Your task to perform on an android device: turn off notifications in google photos Image 0: 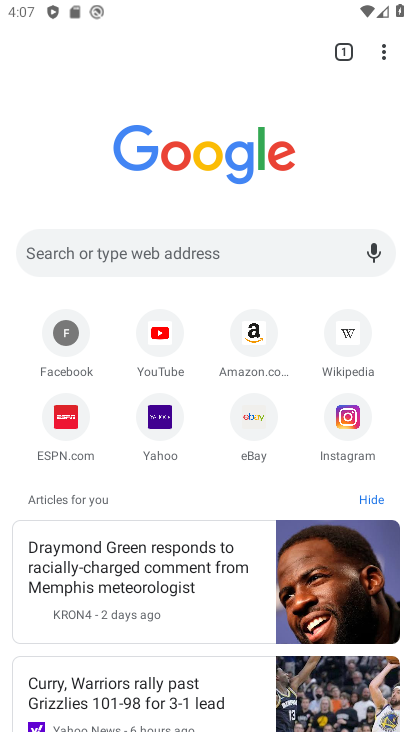
Step 0: press back button
Your task to perform on an android device: turn off notifications in google photos Image 1: 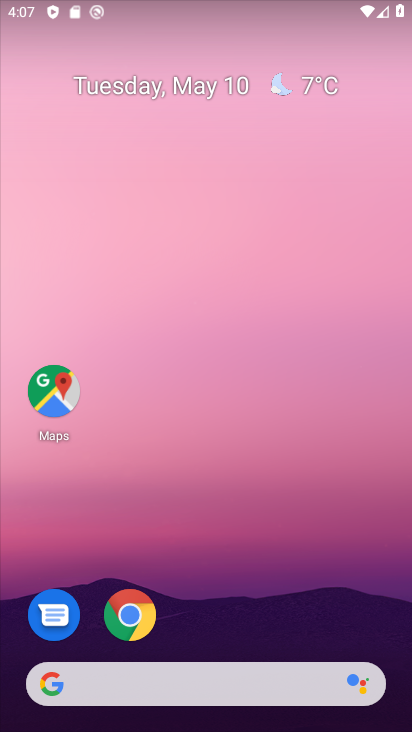
Step 1: drag from (231, 603) to (211, 24)
Your task to perform on an android device: turn off notifications in google photos Image 2: 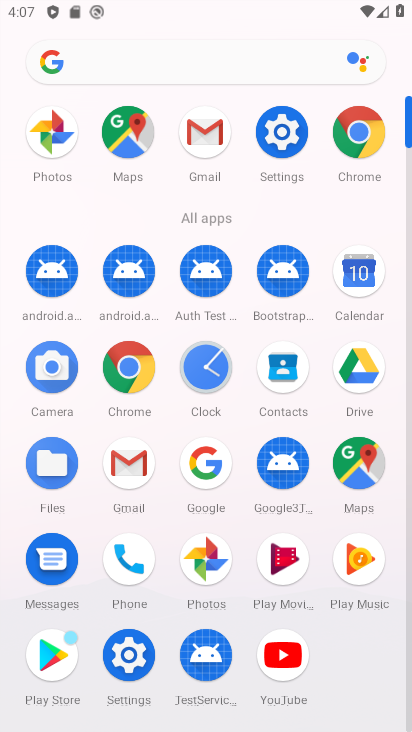
Step 2: click (49, 131)
Your task to perform on an android device: turn off notifications in google photos Image 3: 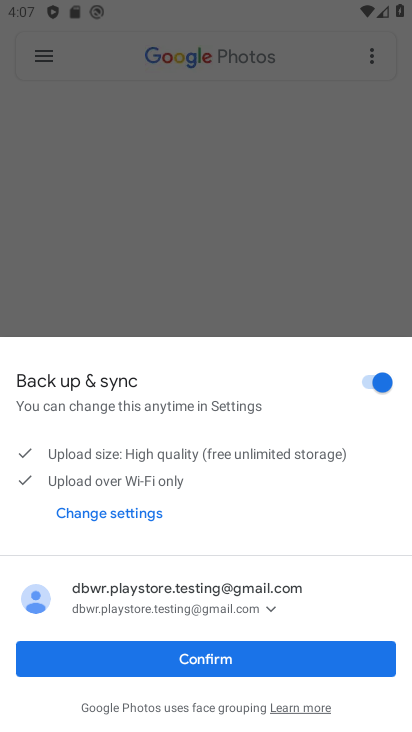
Step 3: click (165, 675)
Your task to perform on an android device: turn off notifications in google photos Image 4: 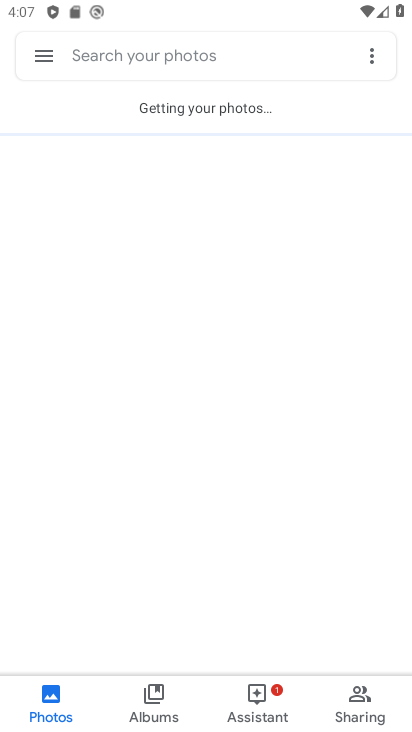
Step 4: click (37, 48)
Your task to perform on an android device: turn off notifications in google photos Image 5: 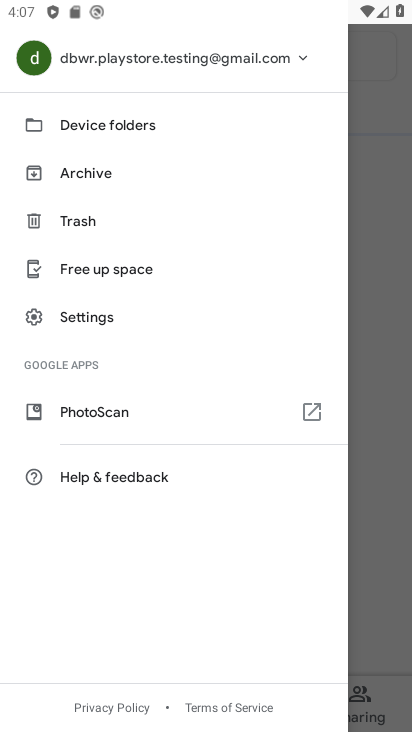
Step 5: click (102, 315)
Your task to perform on an android device: turn off notifications in google photos Image 6: 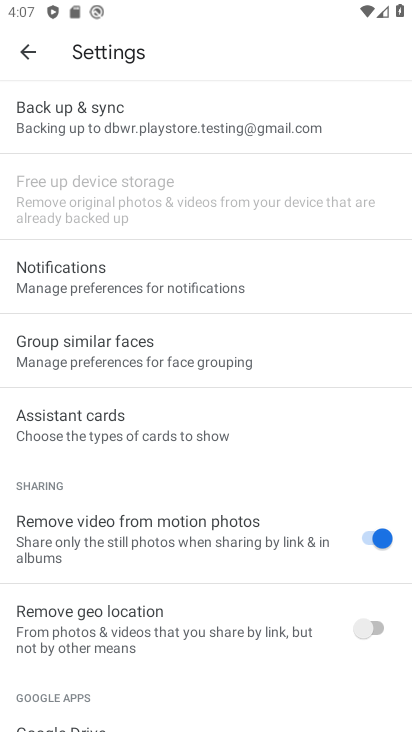
Step 6: drag from (233, 667) to (273, 120)
Your task to perform on an android device: turn off notifications in google photos Image 7: 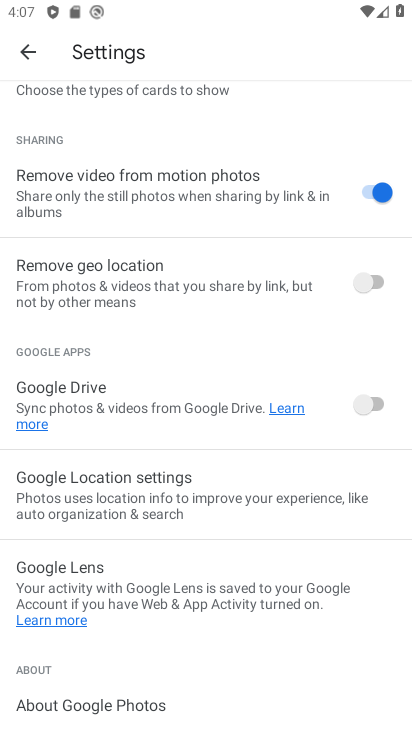
Step 7: drag from (220, 516) to (246, 146)
Your task to perform on an android device: turn off notifications in google photos Image 8: 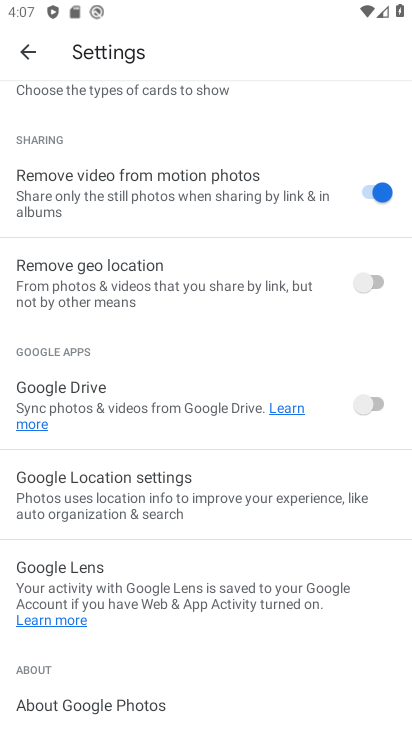
Step 8: drag from (155, 245) to (132, 608)
Your task to perform on an android device: turn off notifications in google photos Image 9: 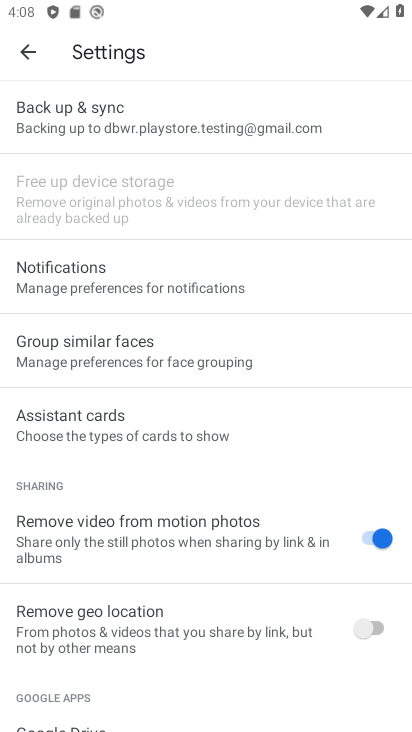
Step 9: drag from (161, 542) to (227, 162)
Your task to perform on an android device: turn off notifications in google photos Image 10: 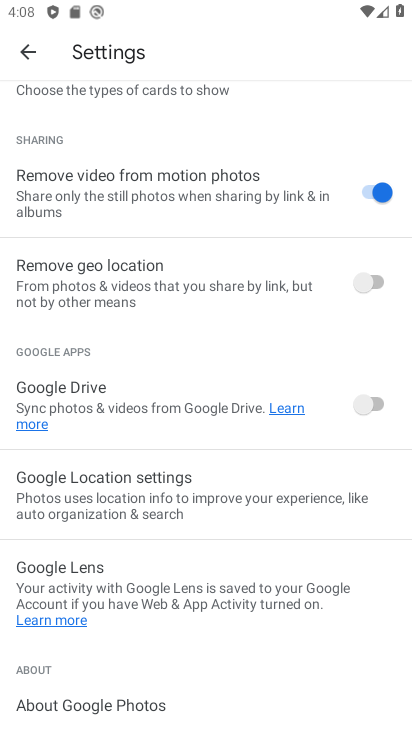
Step 10: drag from (173, 602) to (245, 100)
Your task to perform on an android device: turn off notifications in google photos Image 11: 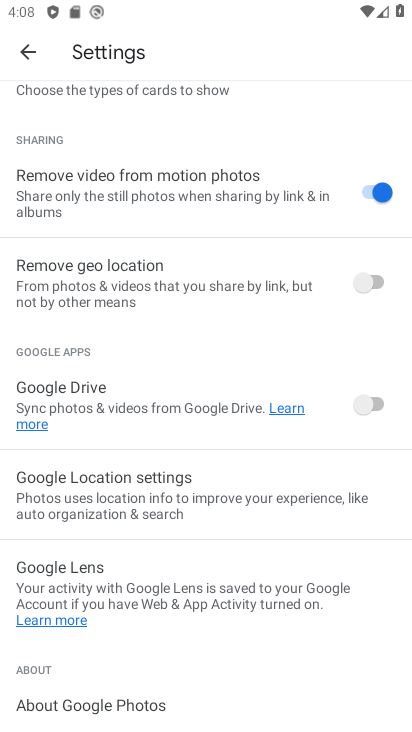
Step 11: drag from (198, 146) to (139, 635)
Your task to perform on an android device: turn off notifications in google photos Image 12: 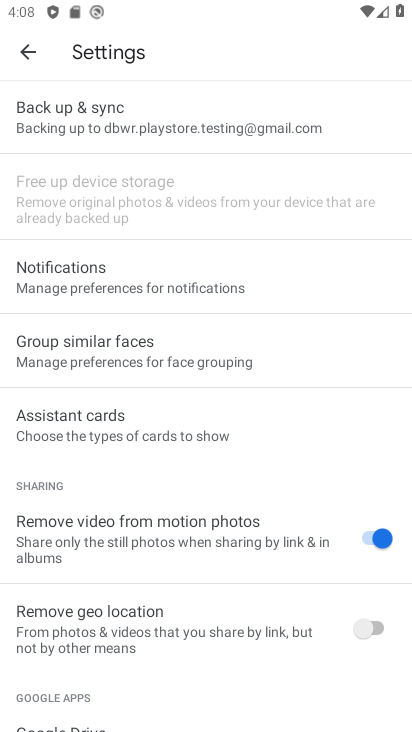
Step 12: click (40, 59)
Your task to perform on an android device: turn off notifications in google photos Image 13: 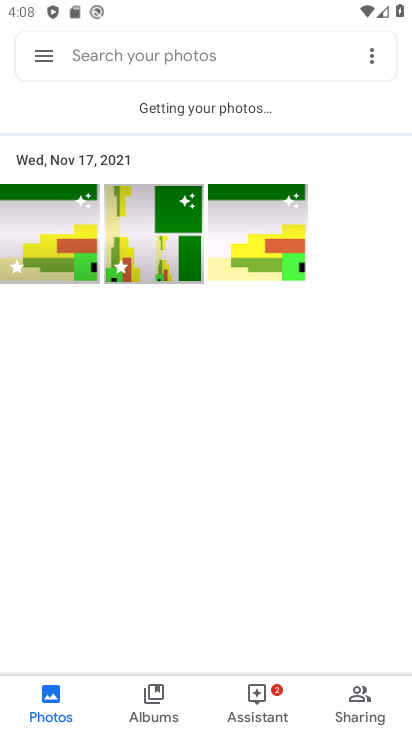
Step 13: click (40, 53)
Your task to perform on an android device: turn off notifications in google photos Image 14: 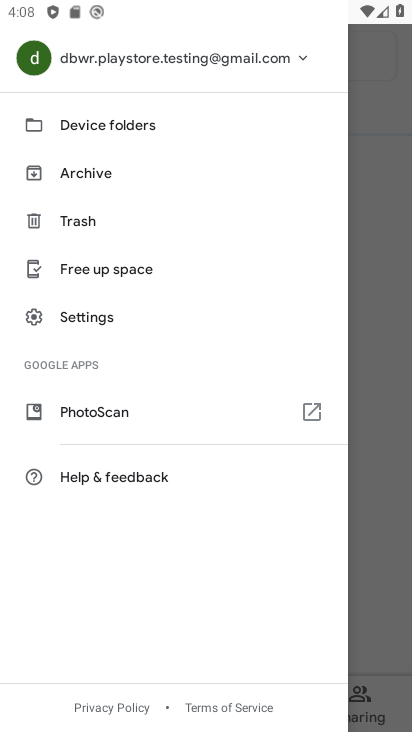
Step 14: click (83, 316)
Your task to perform on an android device: turn off notifications in google photos Image 15: 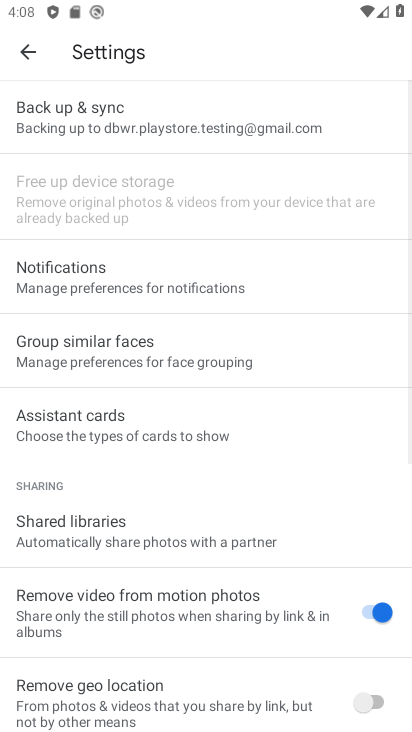
Step 15: click (120, 281)
Your task to perform on an android device: turn off notifications in google photos Image 16: 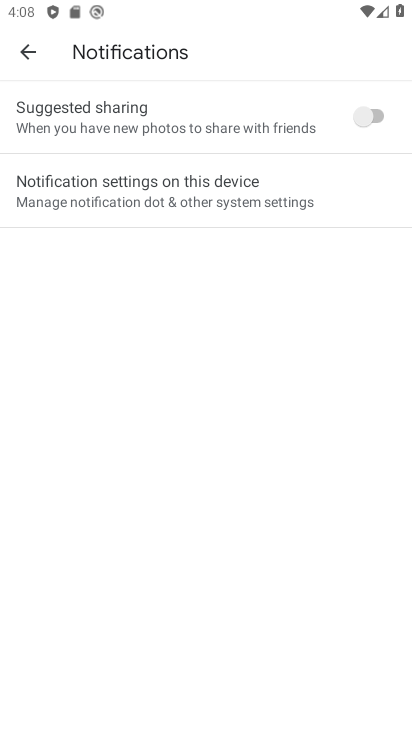
Step 16: click (197, 166)
Your task to perform on an android device: turn off notifications in google photos Image 17: 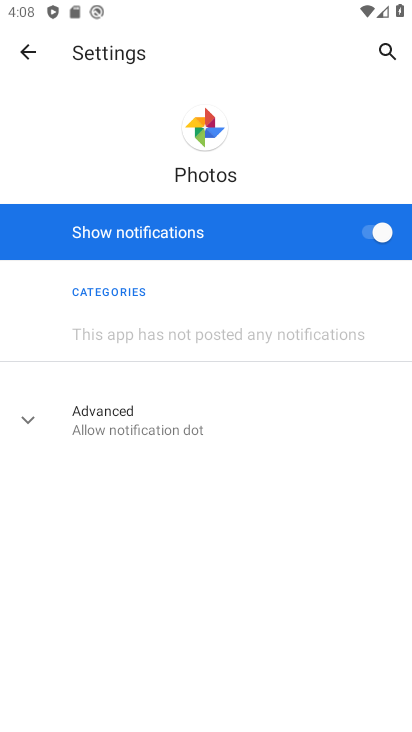
Step 17: click (368, 230)
Your task to perform on an android device: turn off notifications in google photos Image 18: 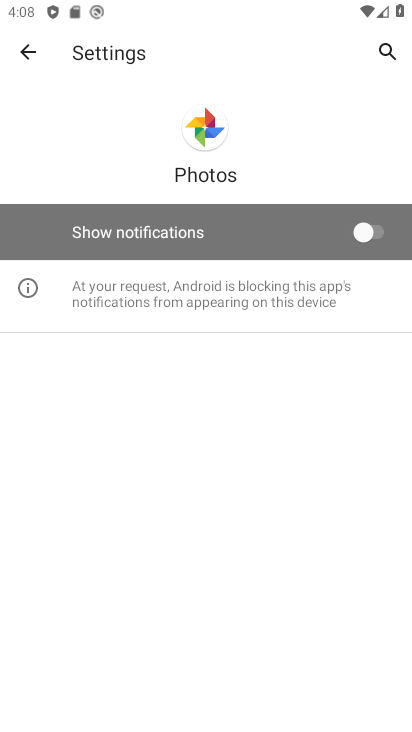
Step 18: task complete